Your task to perform on an android device: Go to CNN.com Image 0: 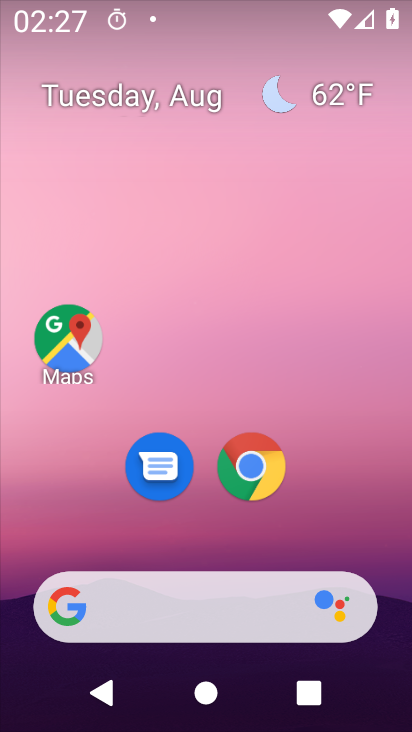
Step 0: press home button
Your task to perform on an android device: Go to CNN.com Image 1: 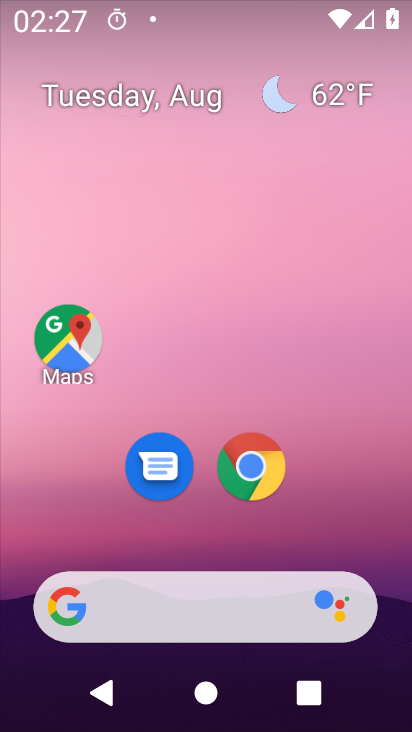
Step 1: drag from (369, 553) to (351, 175)
Your task to perform on an android device: Go to CNN.com Image 2: 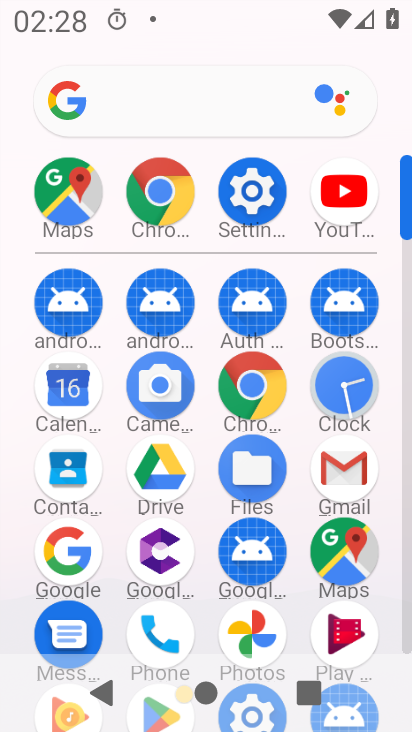
Step 2: click (250, 408)
Your task to perform on an android device: Go to CNN.com Image 3: 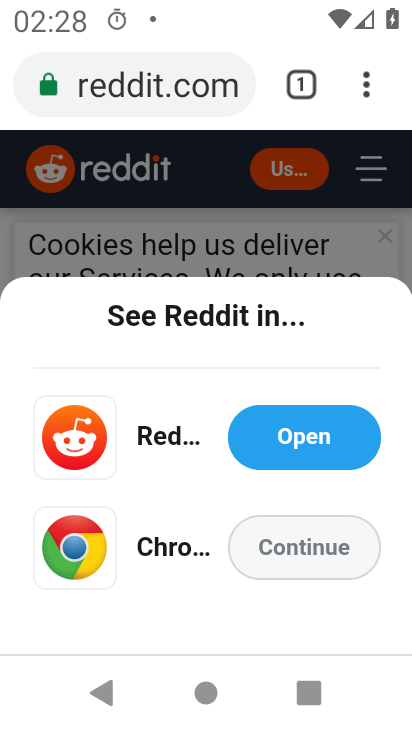
Step 3: click (217, 91)
Your task to perform on an android device: Go to CNN.com Image 4: 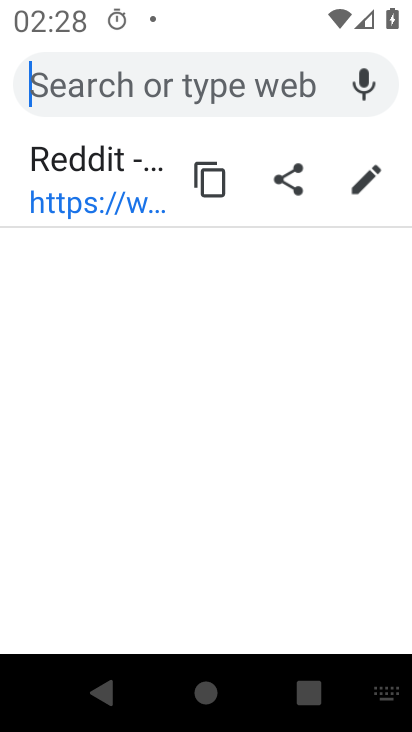
Step 4: type "cnn.com"
Your task to perform on an android device: Go to CNN.com Image 5: 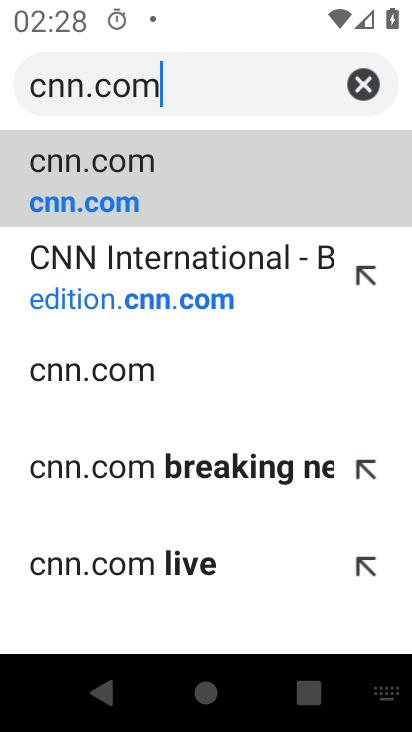
Step 5: click (344, 199)
Your task to perform on an android device: Go to CNN.com Image 6: 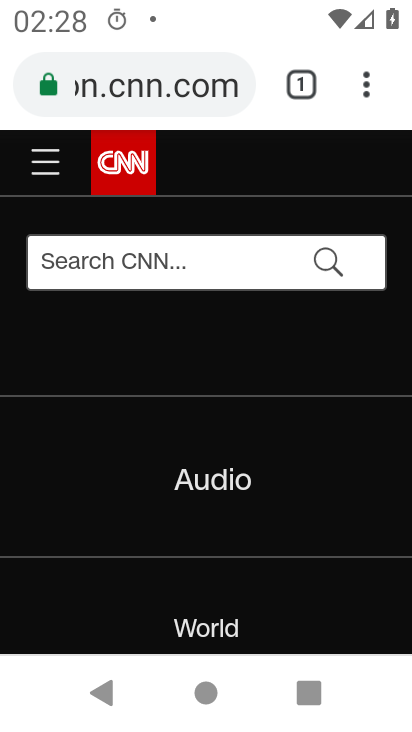
Step 6: task complete